Your task to perform on an android device: What is the news today? Image 0: 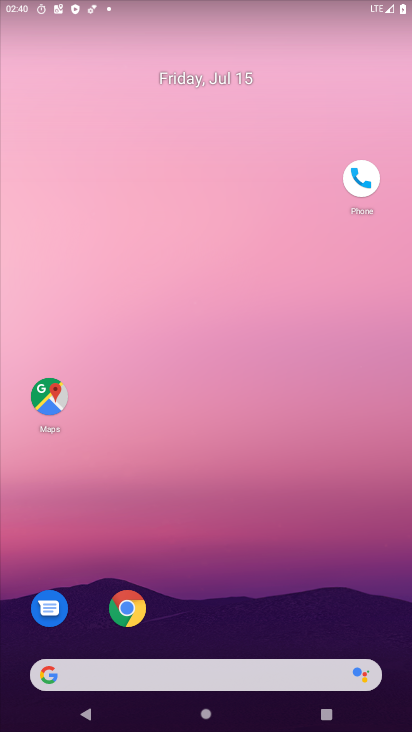
Step 0: click (289, 131)
Your task to perform on an android device: What is the news today? Image 1: 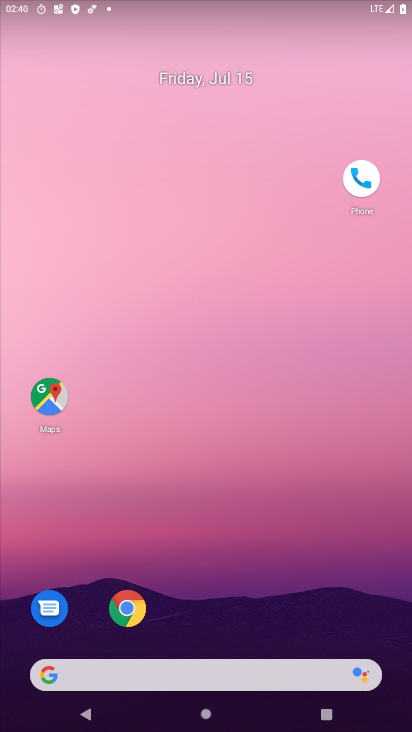
Step 1: drag from (155, 617) to (195, 230)
Your task to perform on an android device: What is the news today? Image 2: 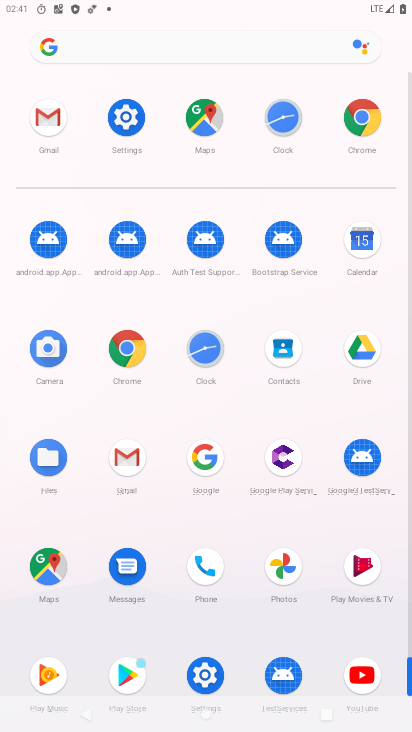
Step 2: click (139, 45)
Your task to perform on an android device: What is the news today? Image 3: 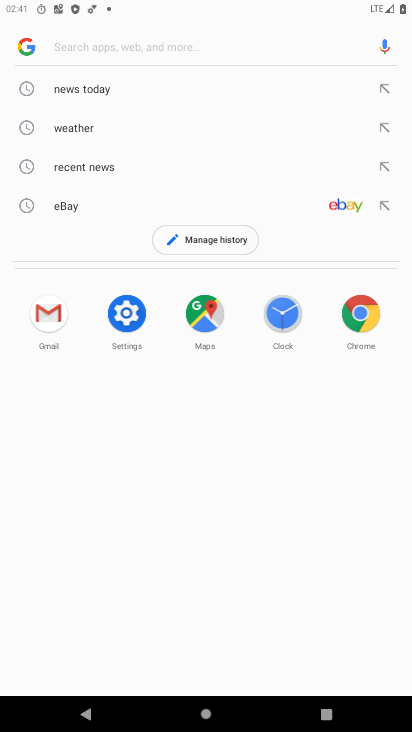
Step 3: click (117, 82)
Your task to perform on an android device: What is the news today? Image 4: 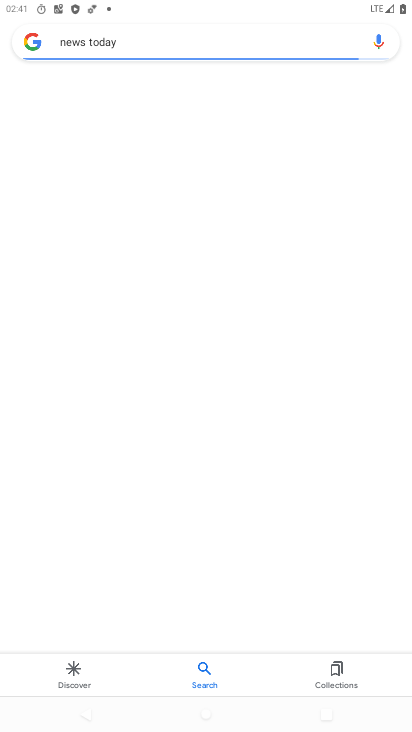
Step 4: task complete